Your task to perform on an android device: Go to Android settings Image 0: 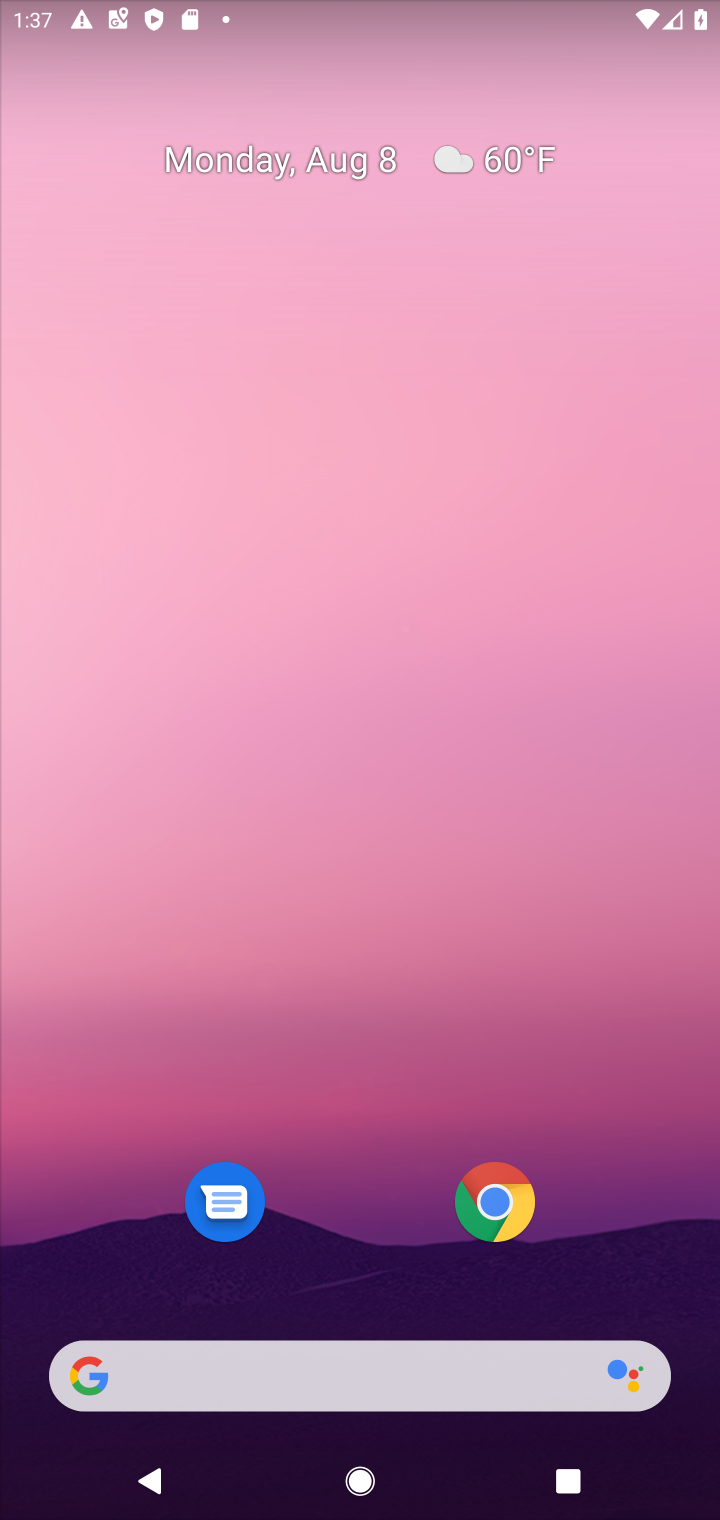
Step 0: press home button
Your task to perform on an android device: Go to Android settings Image 1: 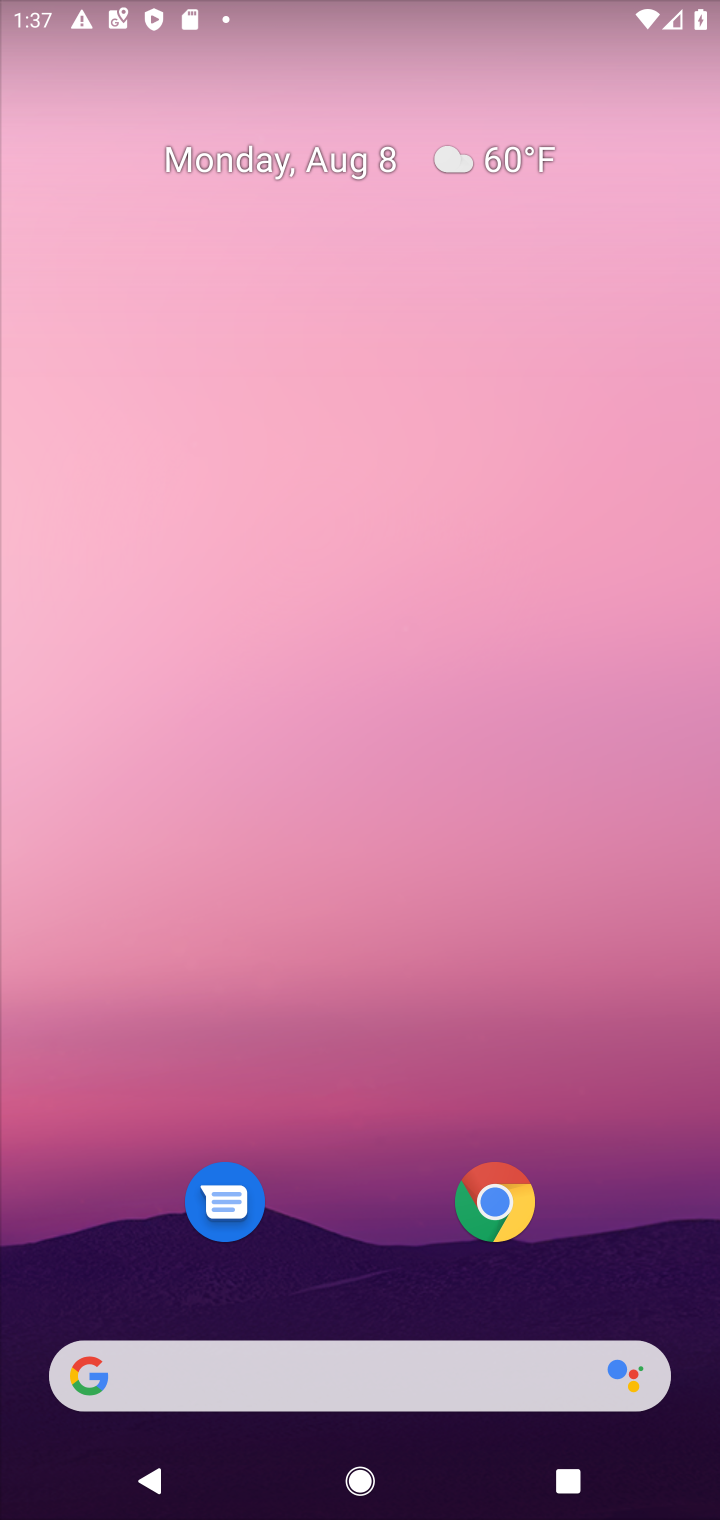
Step 1: drag from (599, 1130) to (668, 459)
Your task to perform on an android device: Go to Android settings Image 2: 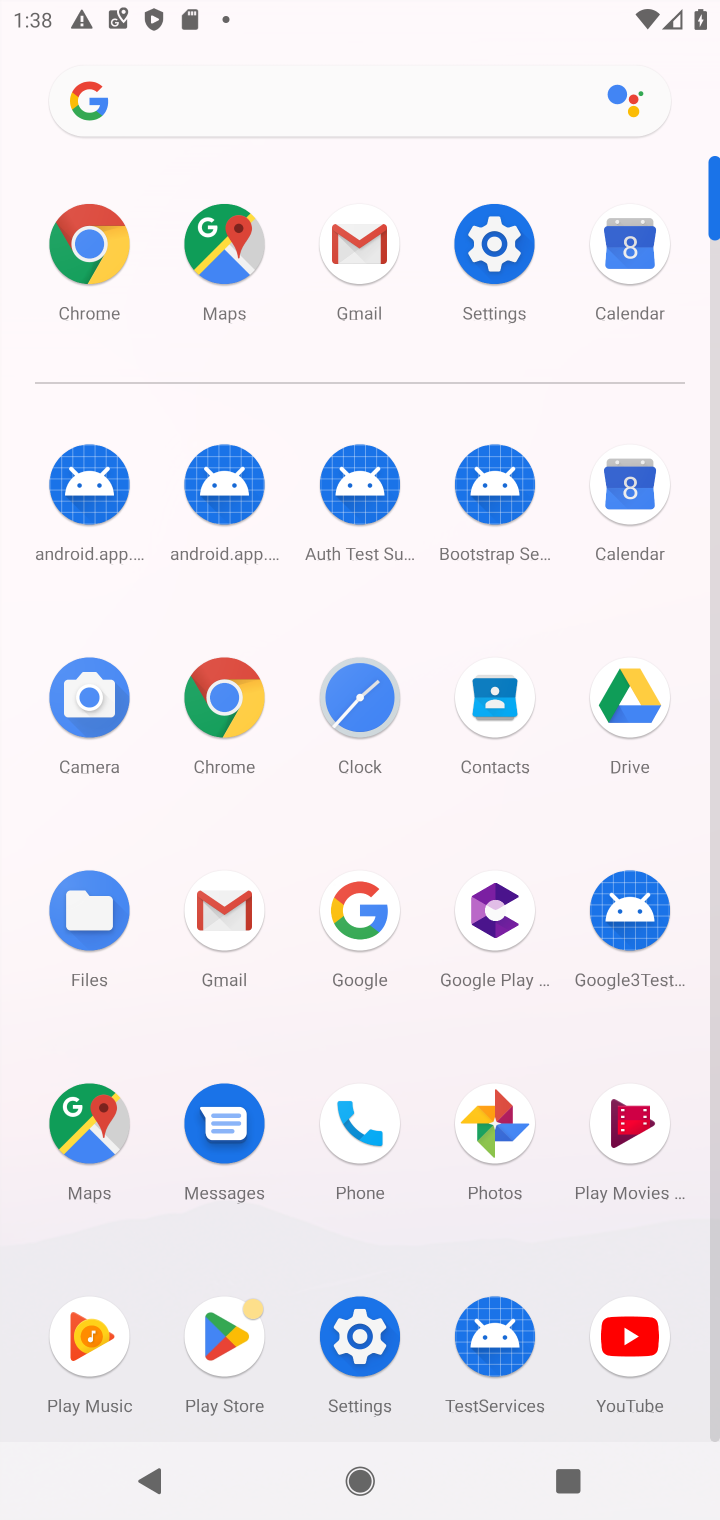
Step 2: click (487, 256)
Your task to perform on an android device: Go to Android settings Image 3: 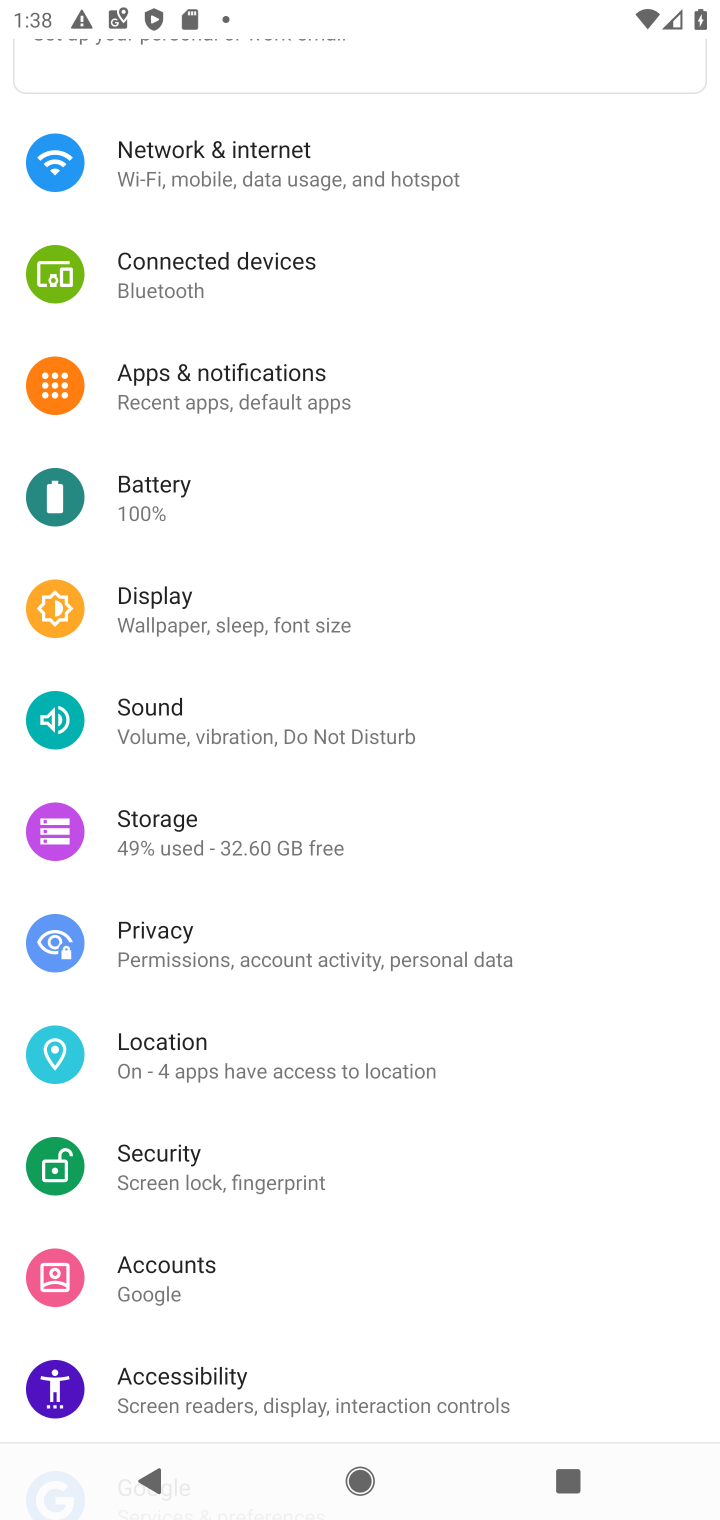
Step 3: drag from (596, 1077) to (610, 747)
Your task to perform on an android device: Go to Android settings Image 4: 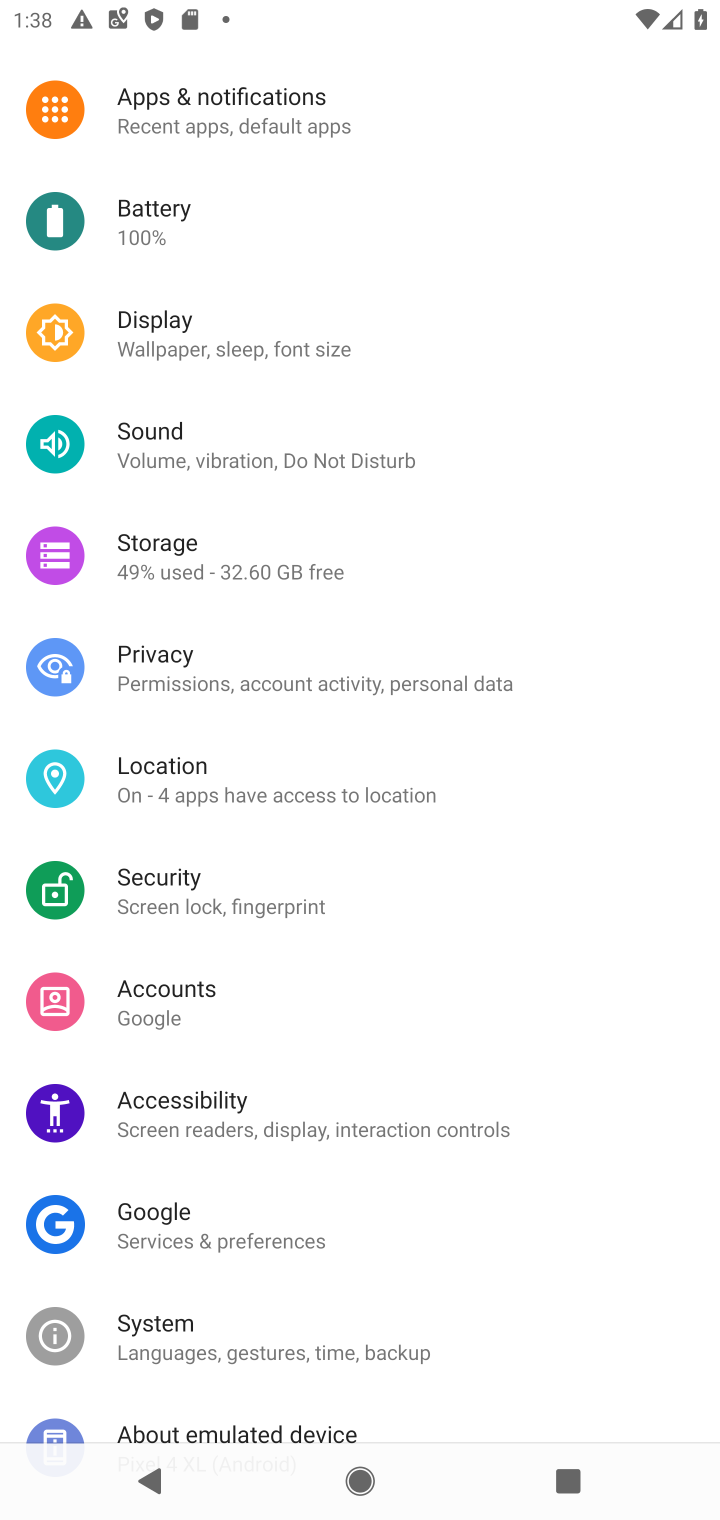
Step 4: drag from (521, 1099) to (558, 826)
Your task to perform on an android device: Go to Android settings Image 5: 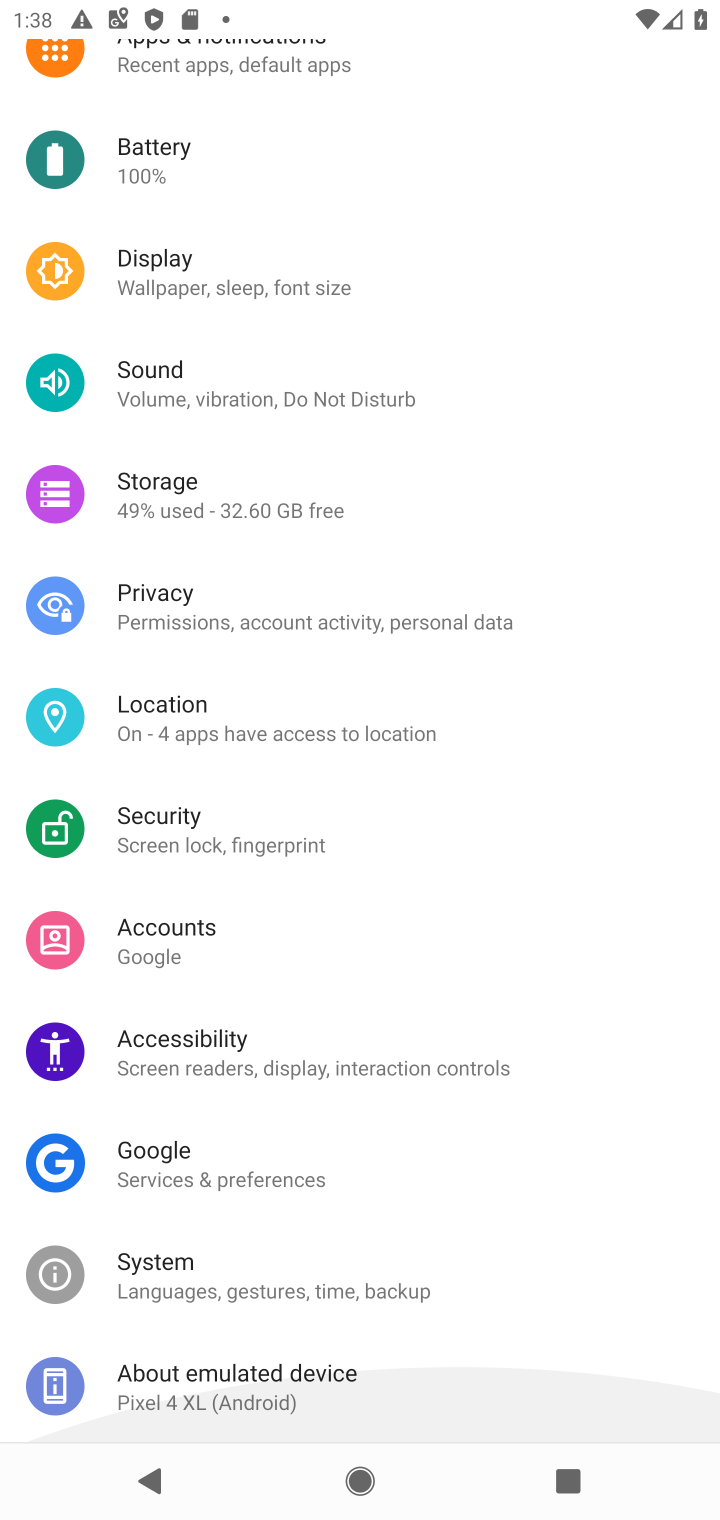
Step 5: drag from (585, 1083) to (602, 946)
Your task to perform on an android device: Go to Android settings Image 6: 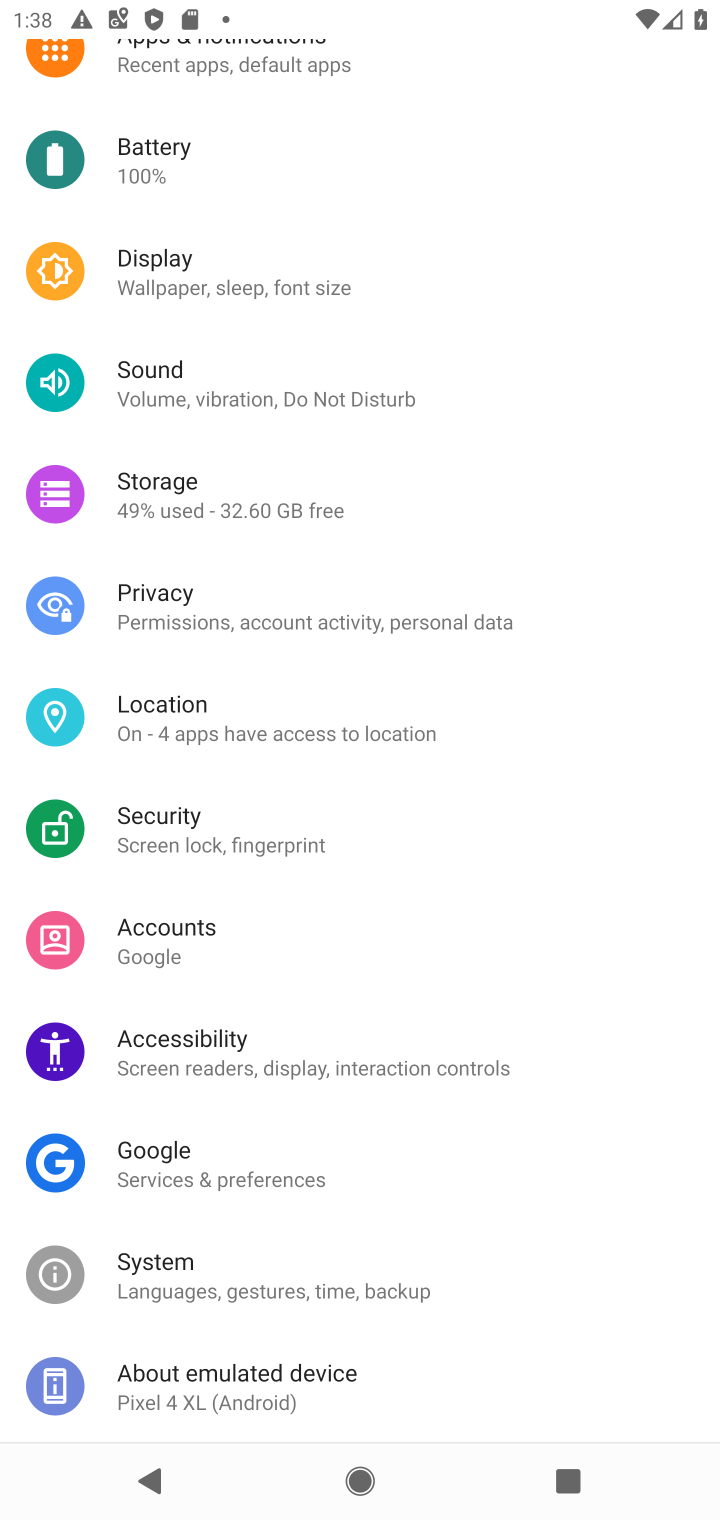
Step 6: drag from (563, 687) to (553, 929)
Your task to perform on an android device: Go to Android settings Image 7: 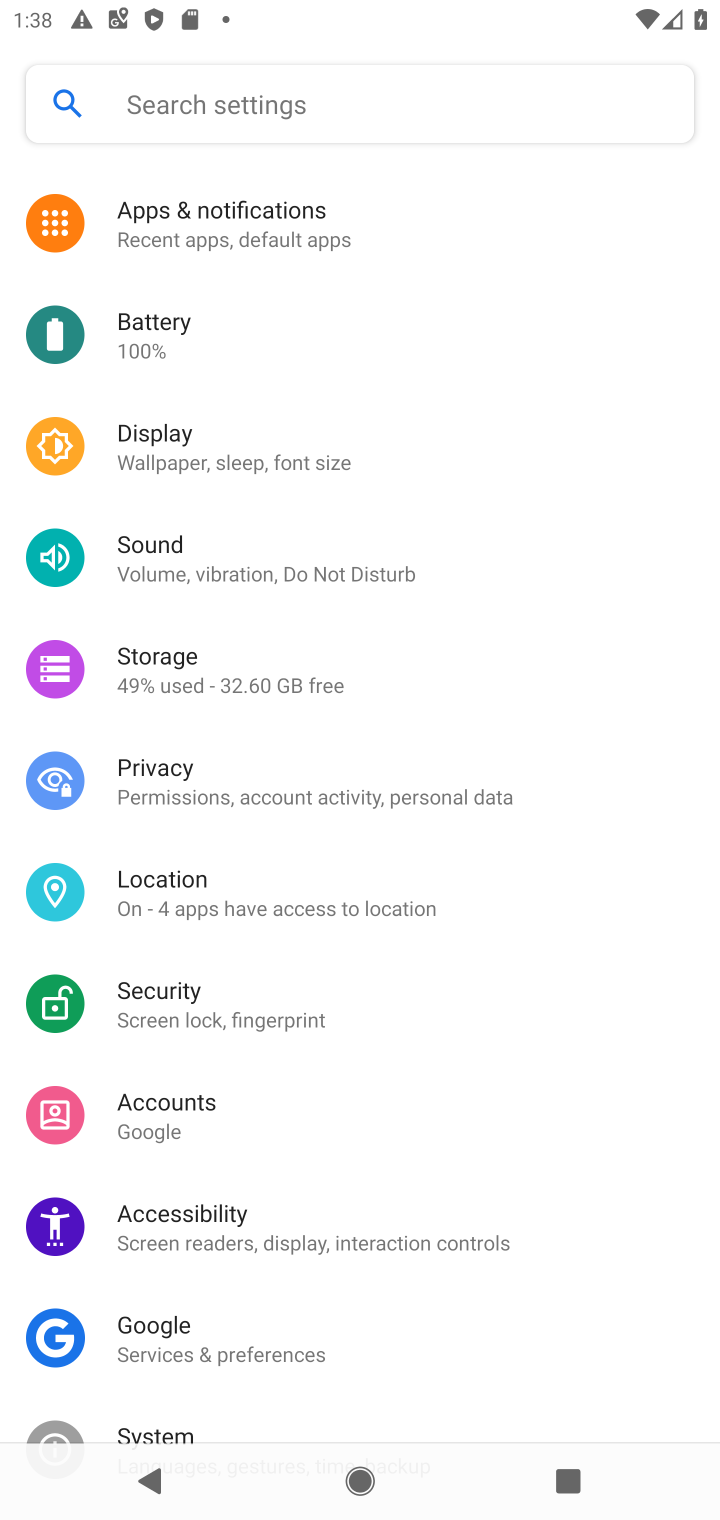
Step 7: drag from (559, 592) to (554, 937)
Your task to perform on an android device: Go to Android settings Image 8: 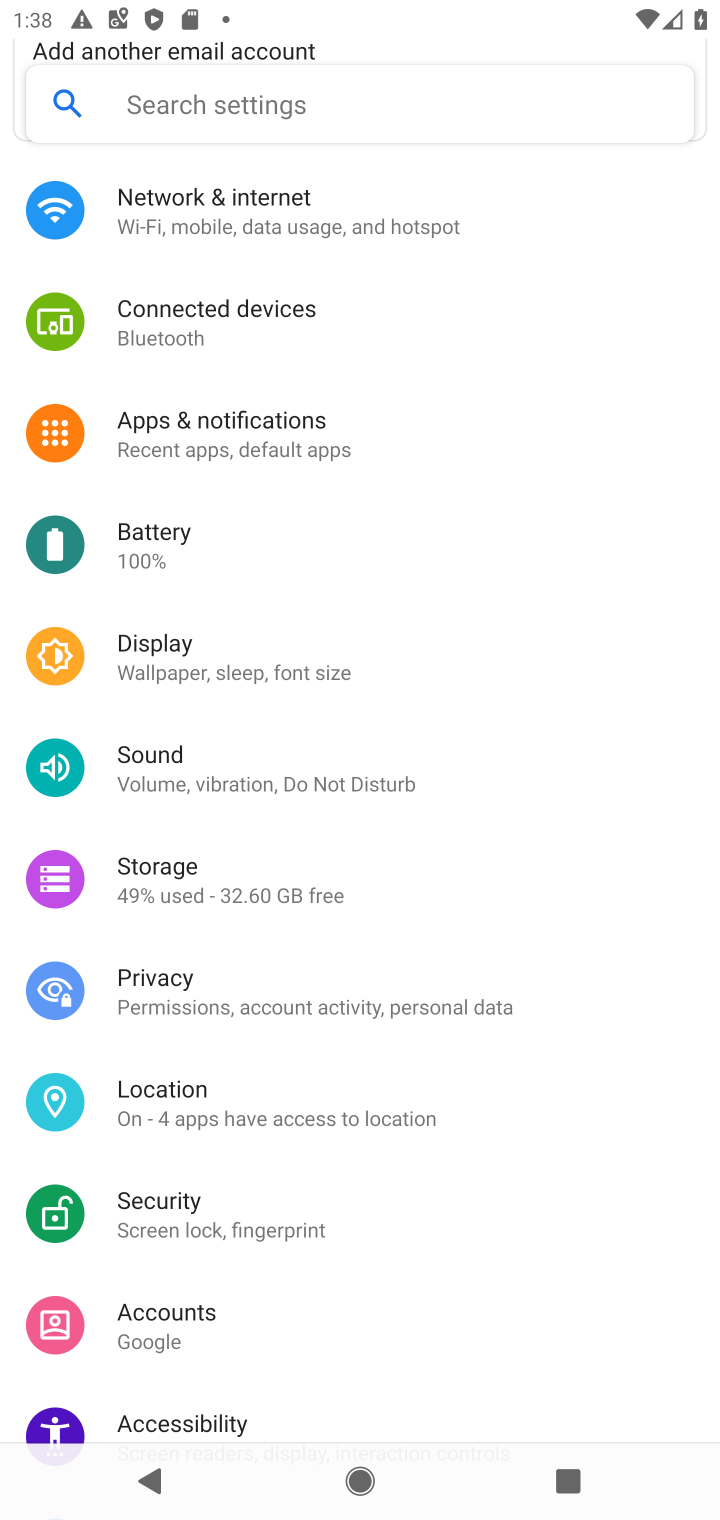
Step 8: drag from (590, 537) to (580, 835)
Your task to perform on an android device: Go to Android settings Image 9: 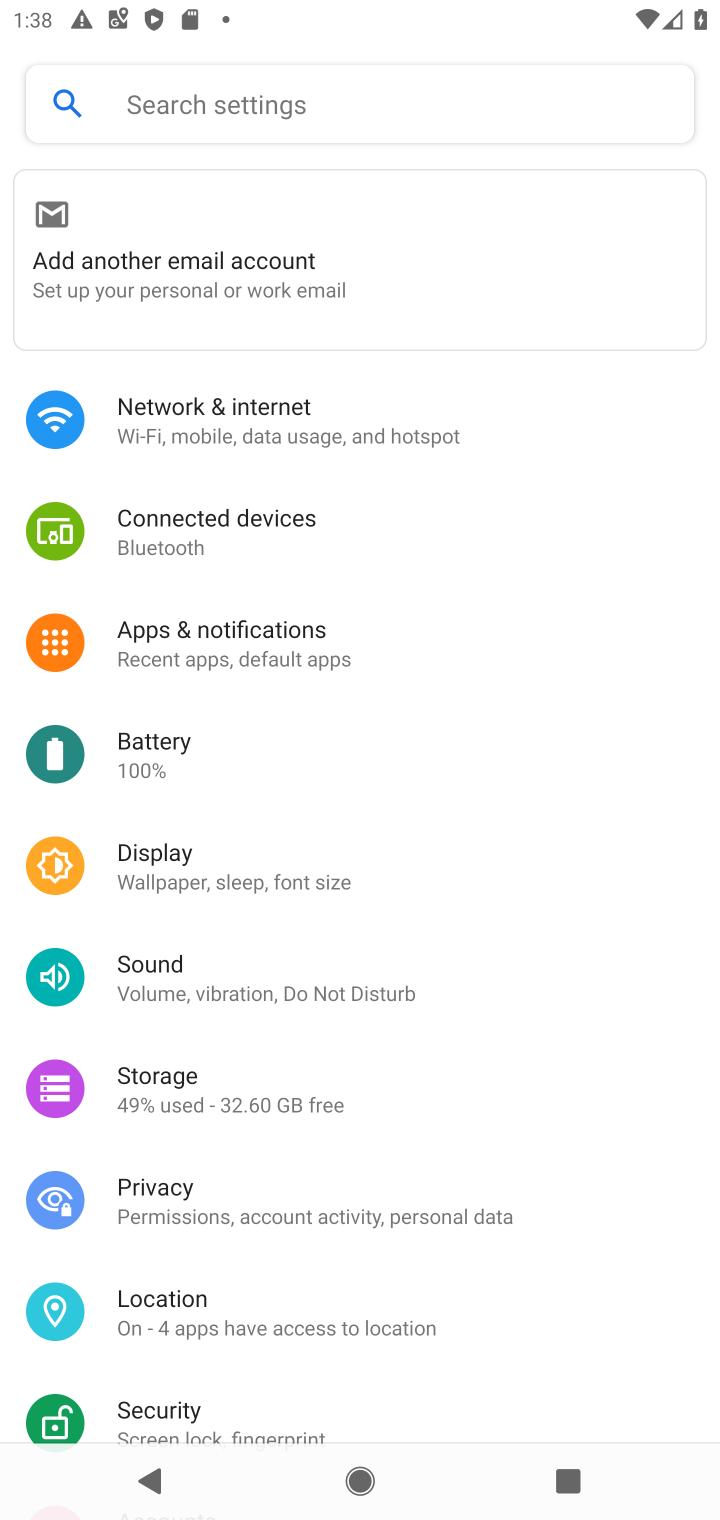
Step 9: drag from (570, 621) to (567, 856)
Your task to perform on an android device: Go to Android settings Image 10: 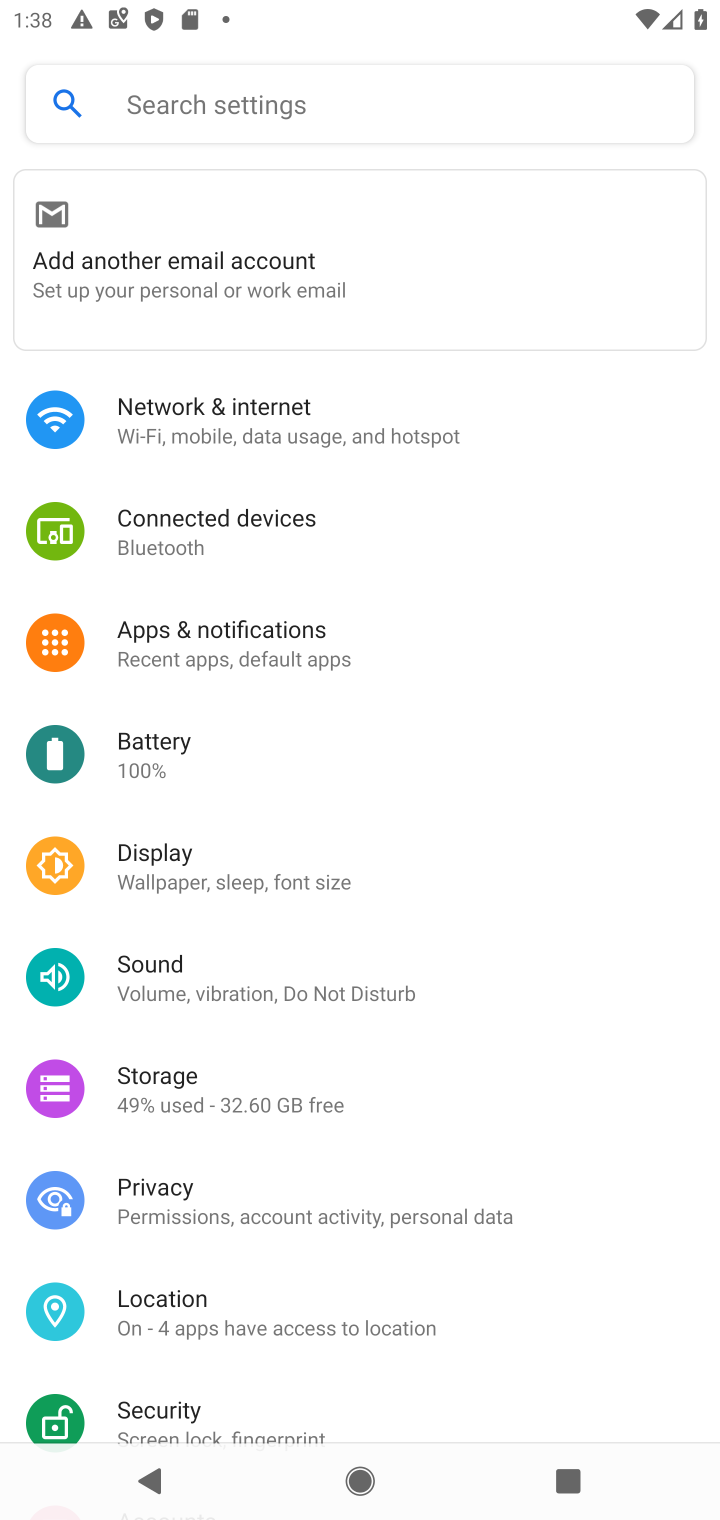
Step 10: drag from (538, 1068) to (549, 791)
Your task to perform on an android device: Go to Android settings Image 11: 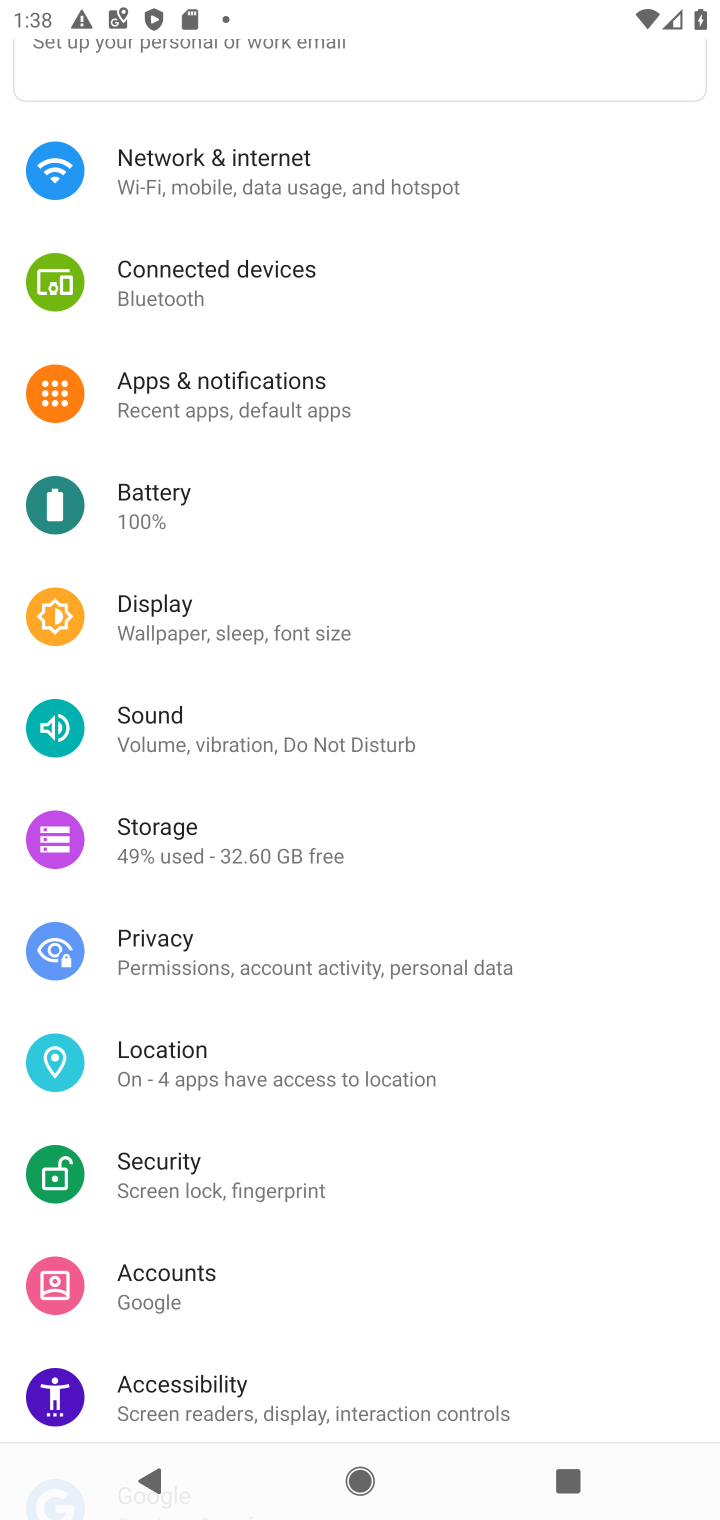
Step 11: drag from (577, 1115) to (583, 961)
Your task to perform on an android device: Go to Android settings Image 12: 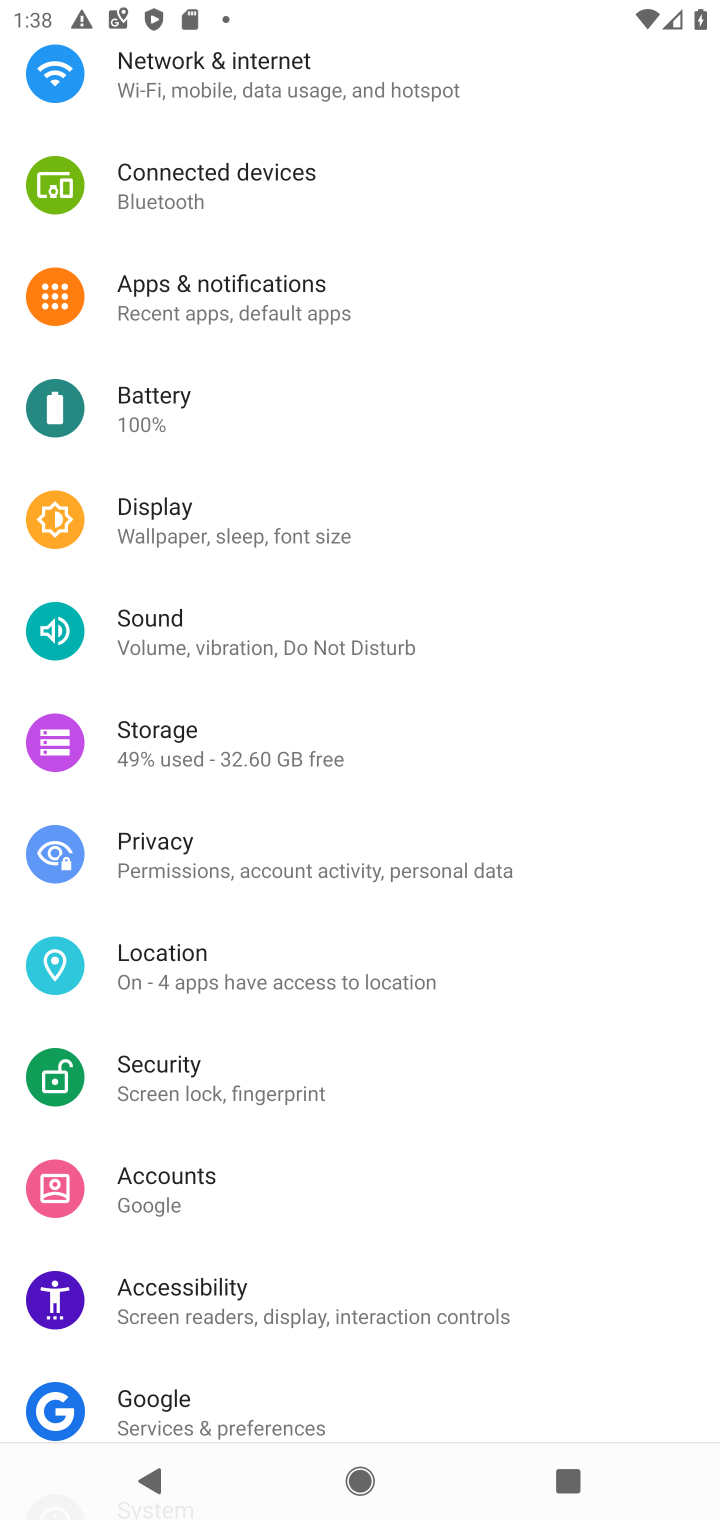
Step 12: drag from (548, 1109) to (563, 889)
Your task to perform on an android device: Go to Android settings Image 13: 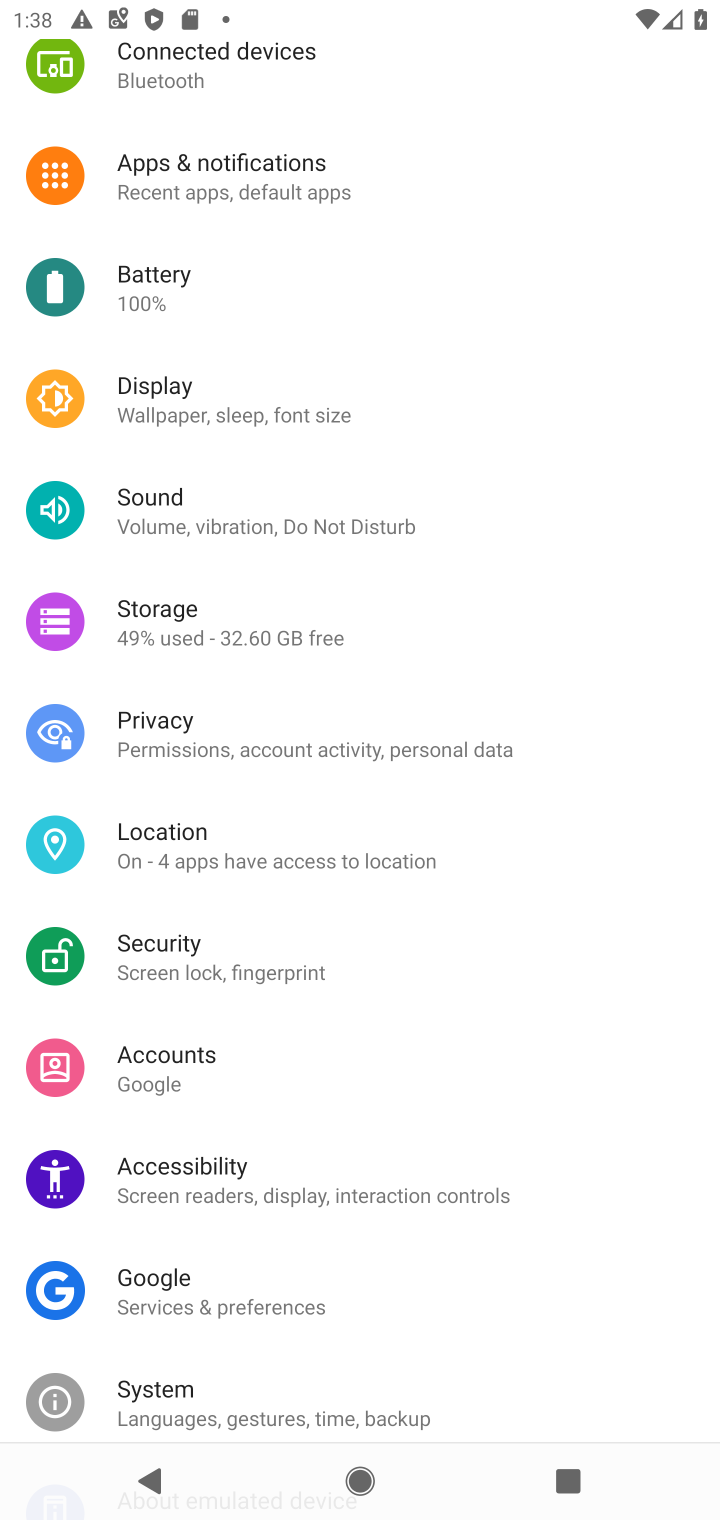
Step 13: drag from (552, 1097) to (565, 848)
Your task to perform on an android device: Go to Android settings Image 14: 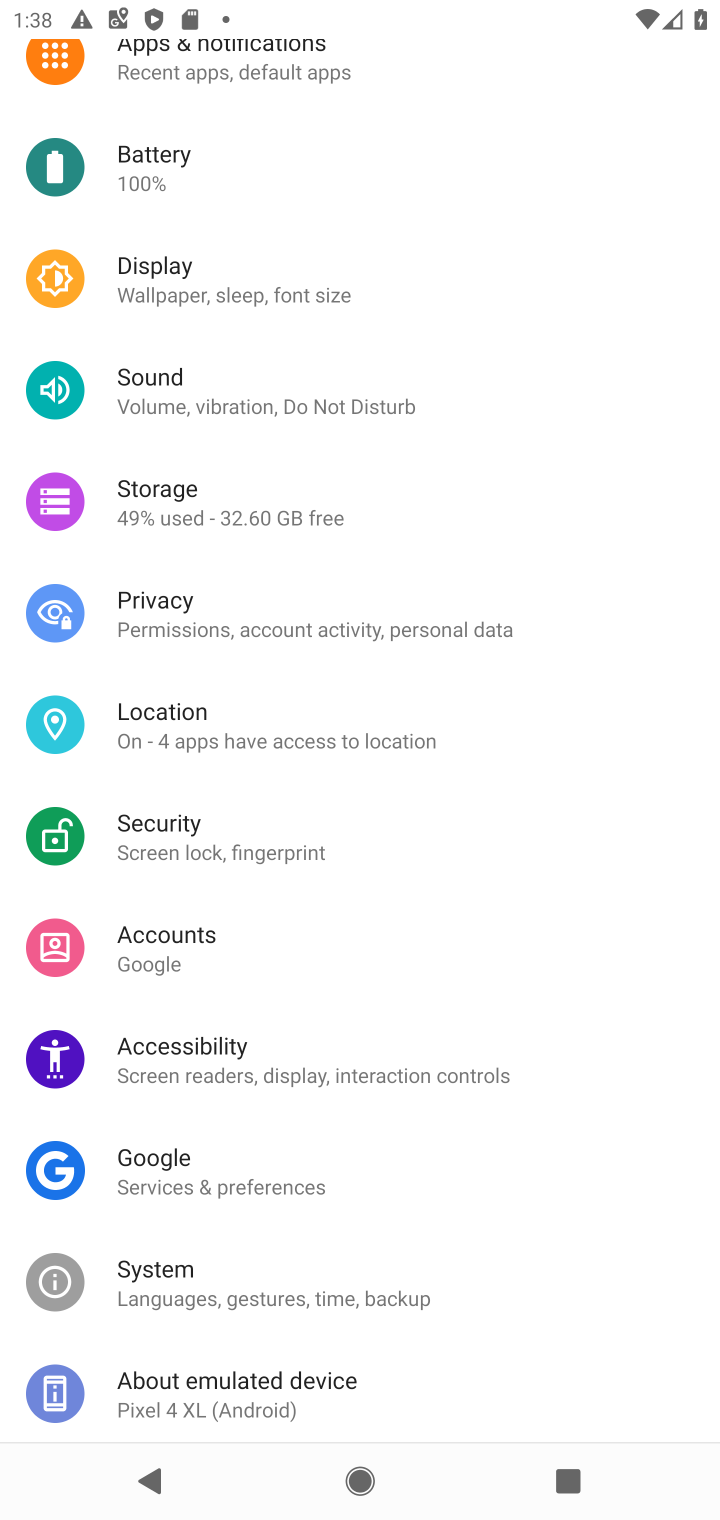
Step 14: drag from (556, 1216) to (590, 887)
Your task to perform on an android device: Go to Android settings Image 15: 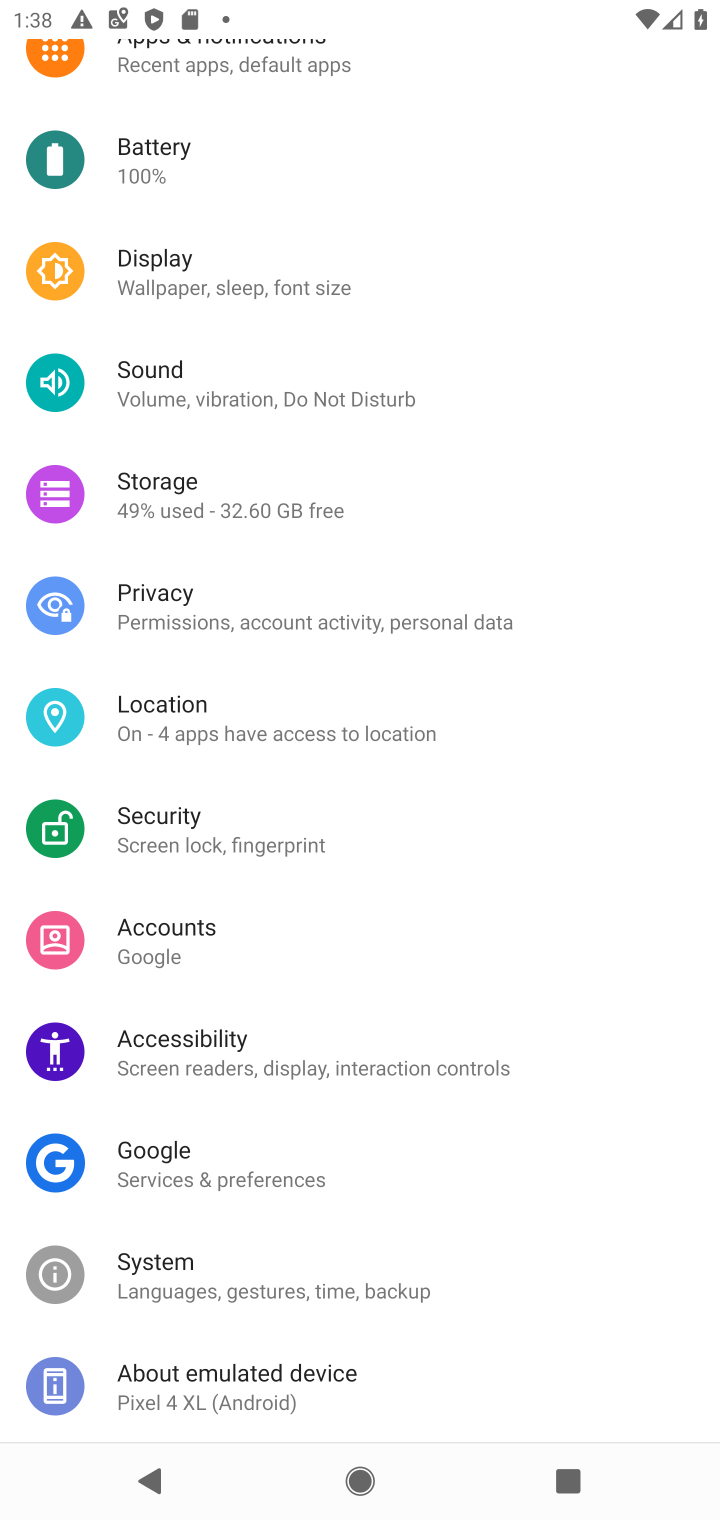
Step 15: click (298, 1297)
Your task to perform on an android device: Go to Android settings Image 16: 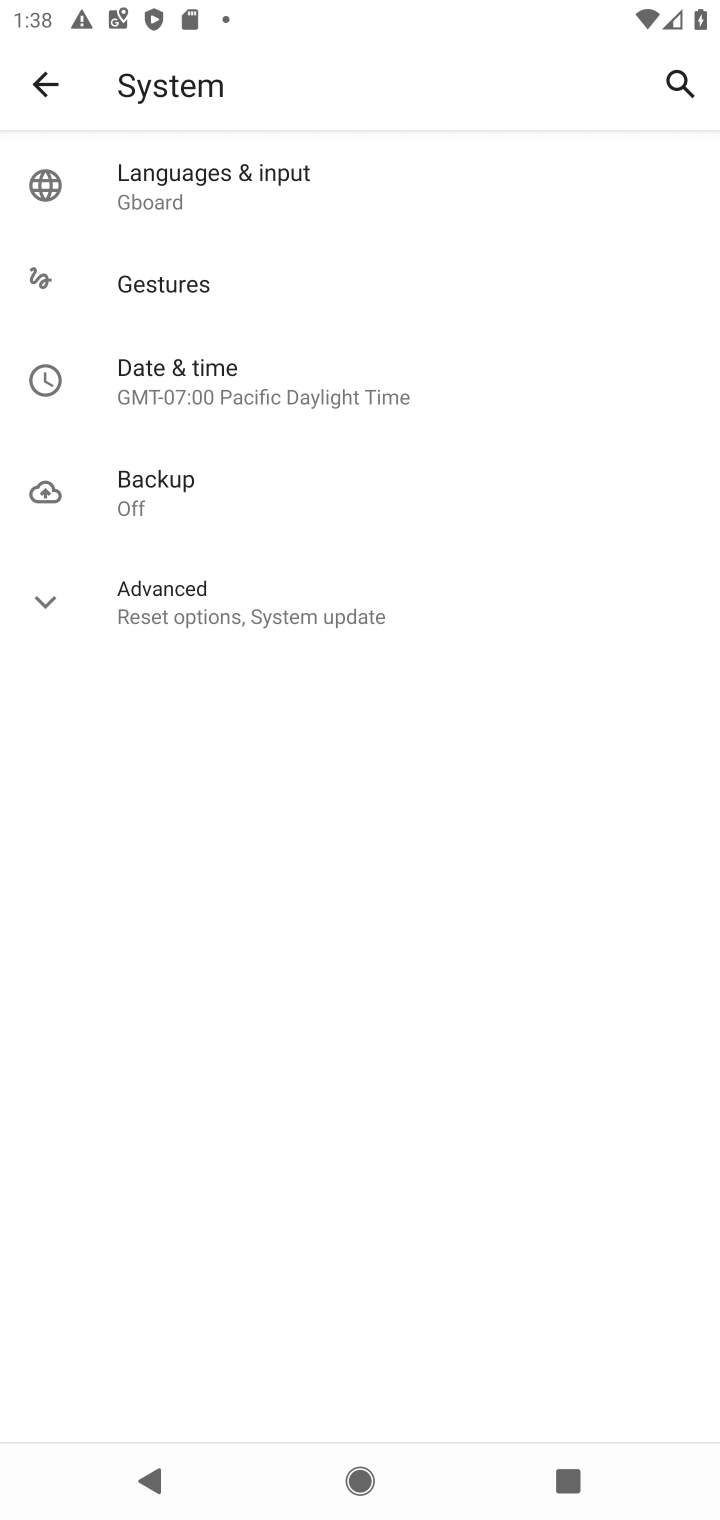
Step 16: click (315, 627)
Your task to perform on an android device: Go to Android settings Image 17: 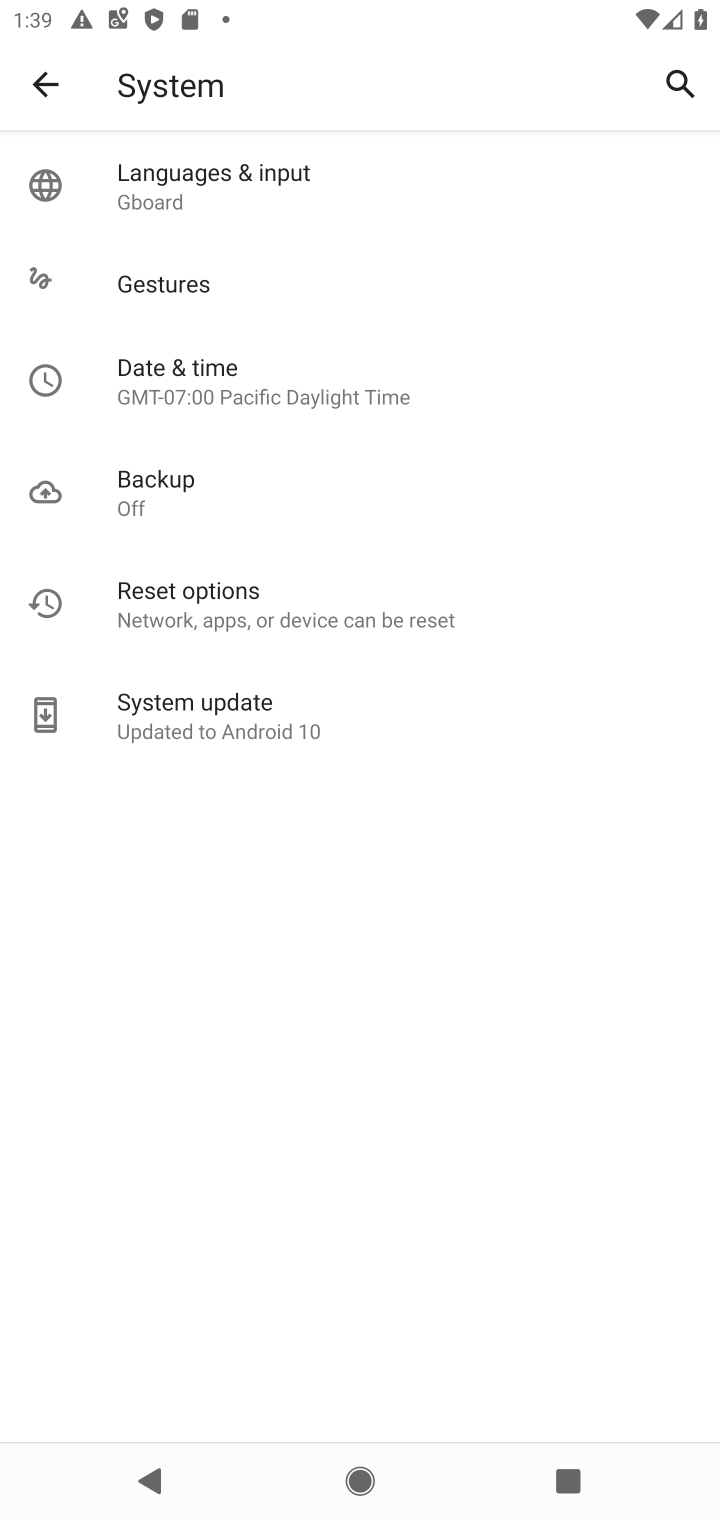
Step 17: task complete